Your task to perform on an android device: Open a new Chrome incognito window Image 0: 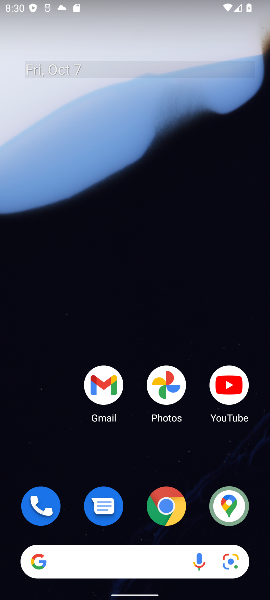
Step 0: click (164, 509)
Your task to perform on an android device: Open a new Chrome incognito window Image 1: 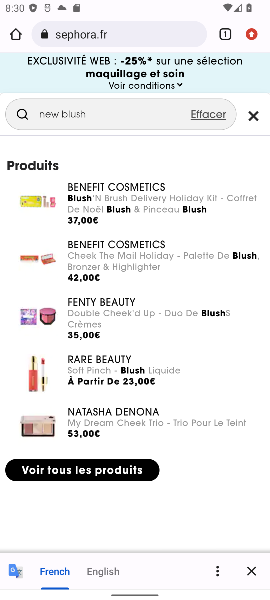
Step 1: click (249, 36)
Your task to perform on an android device: Open a new Chrome incognito window Image 2: 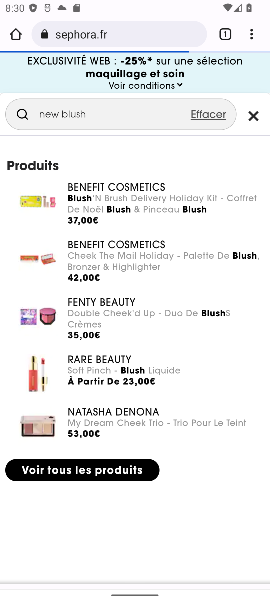
Step 2: task complete